Your task to perform on an android device: Go to privacy settings Image 0: 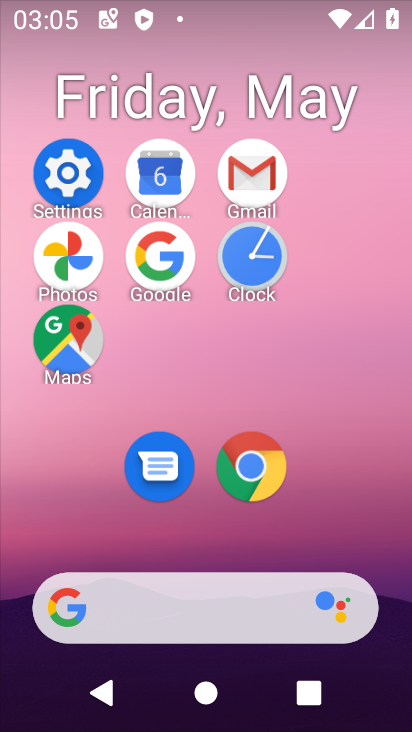
Step 0: click (95, 177)
Your task to perform on an android device: Go to privacy settings Image 1: 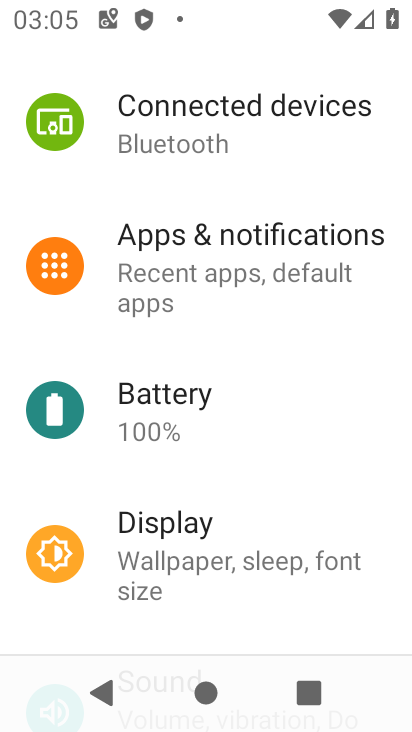
Step 1: drag from (299, 319) to (314, 138)
Your task to perform on an android device: Go to privacy settings Image 2: 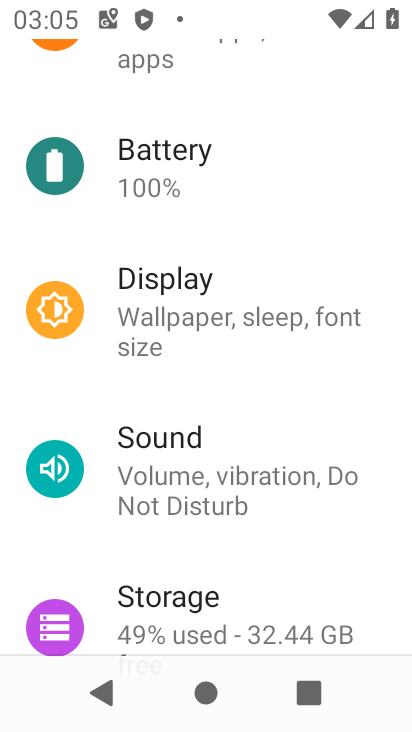
Step 2: drag from (274, 511) to (303, 108)
Your task to perform on an android device: Go to privacy settings Image 3: 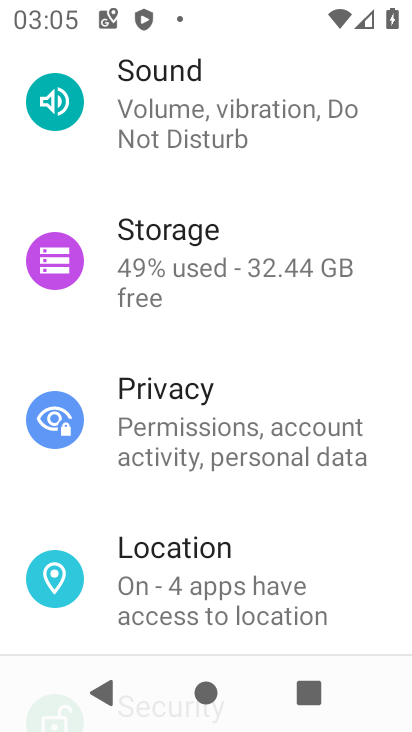
Step 3: click (258, 393)
Your task to perform on an android device: Go to privacy settings Image 4: 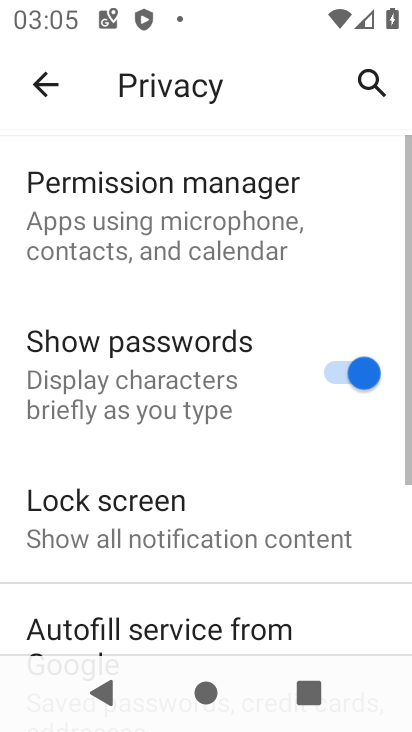
Step 4: task complete